Your task to perform on an android device: turn off notifications in google photos Image 0: 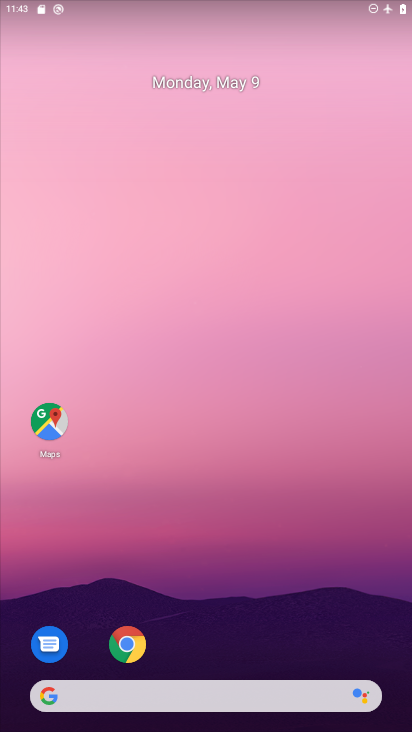
Step 0: drag from (274, 629) to (198, 204)
Your task to perform on an android device: turn off notifications in google photos Image 1: 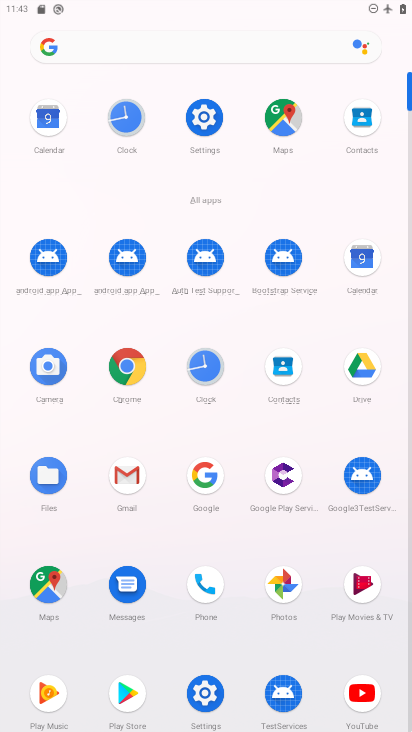
Step 1: click (284, 590)
Your task to perform on an android device: turn off notifications in google photos Image 2: 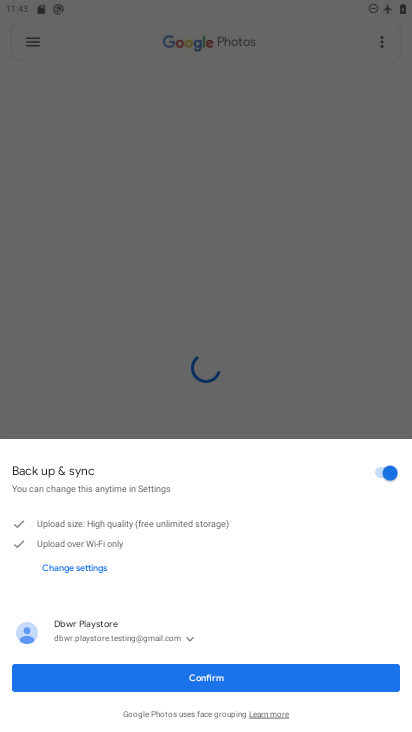
Step 2: click (218, 684)
Your task to perform on an android device: turn off notifications in google photos Image 3: 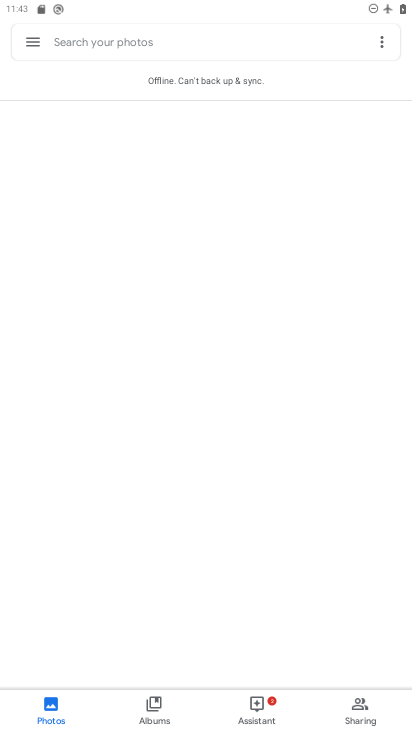
Step 3: click (34, 34)
Your task to perform on an android device: turn off notifications in google photos Image 4: 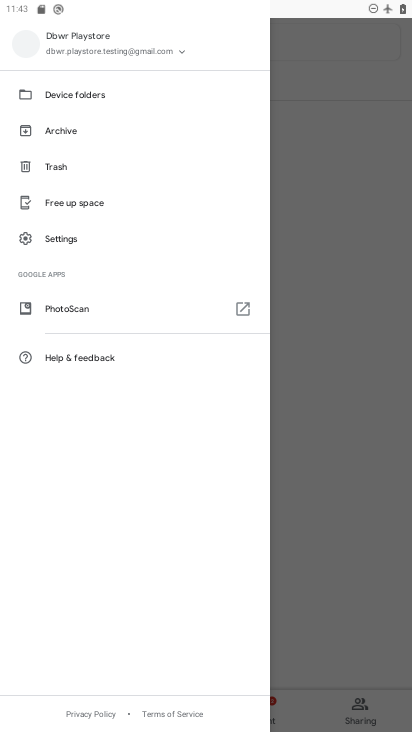
Step 4: click (63, 242)
Your task to perform on an android device: turn off notifications in google photos Image 5: 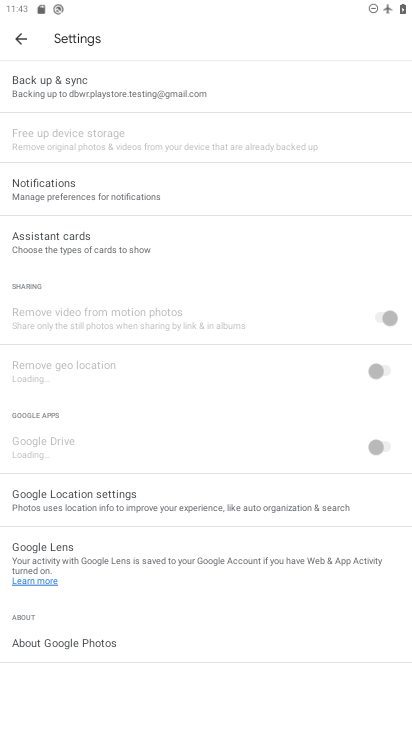
Step 5: drag from (155, 586) to (192, 284)
Your task to perform on an android device: turn off notifications in google photos Image 6: 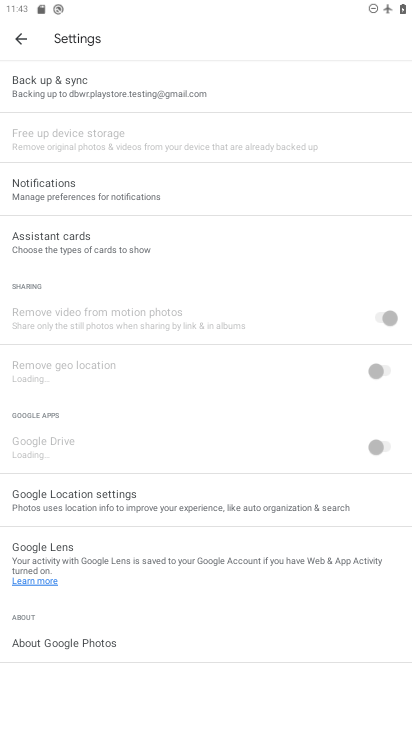
Step 6: click (94, 181)
Your task to perform on an android device: turn off notifications in google photos Image 7: 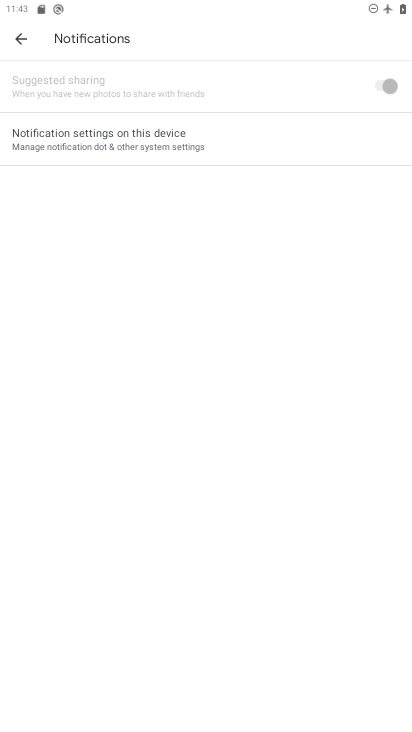
Step 7: click (162, 156)
Your task to perform on an android device: turn off notifications in google photos Image 8: 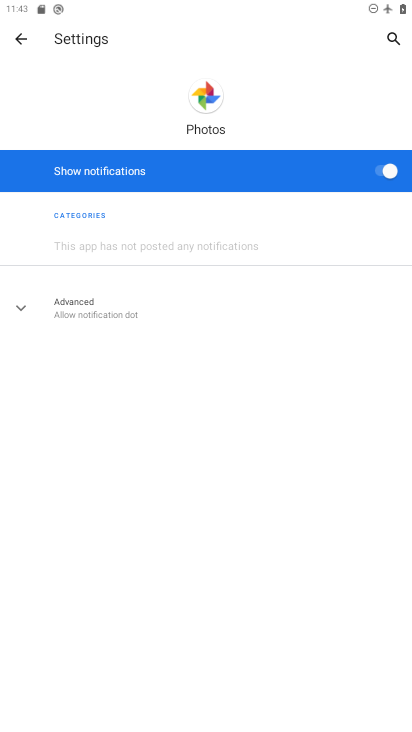
Step 8: click (377, 178)
Your task to perform on an android device: turn off notifications in google photos Image 9: 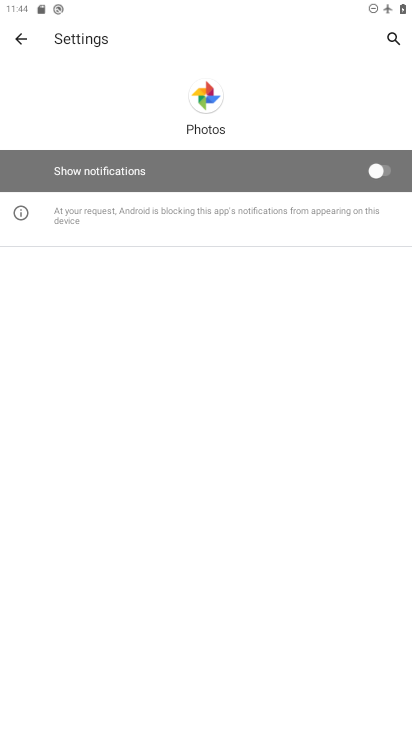
Step 9: task complete